Your task to perform on an android device: uninstall "Duolingo: language lessons" Image 0: 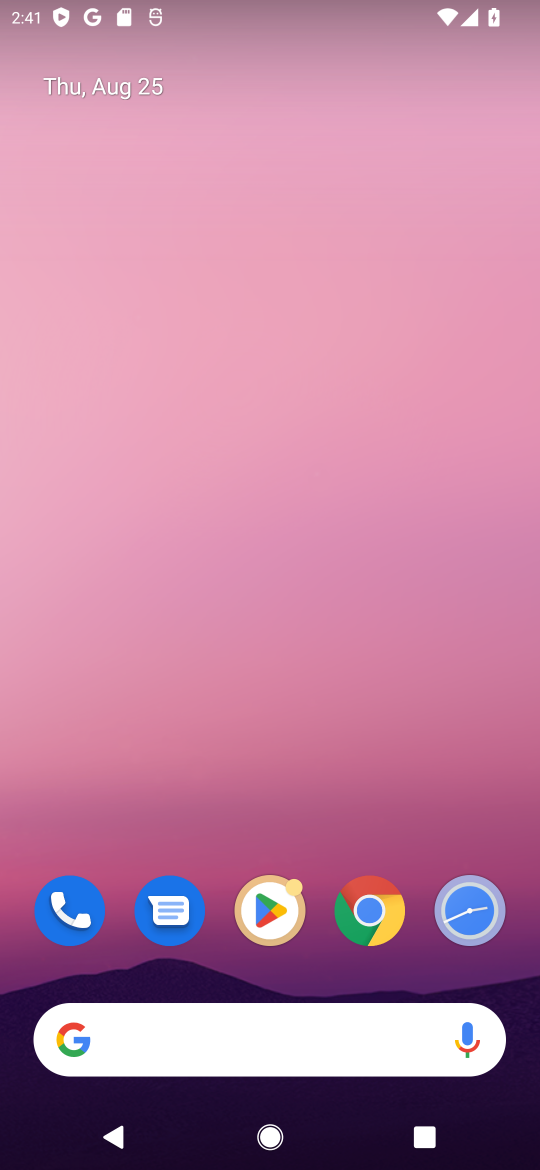
Step 0: drag from (352, 902) to (512, 108)
Your task to perform on an android device: uninstall "Duolingo: language lessons" Image 1: 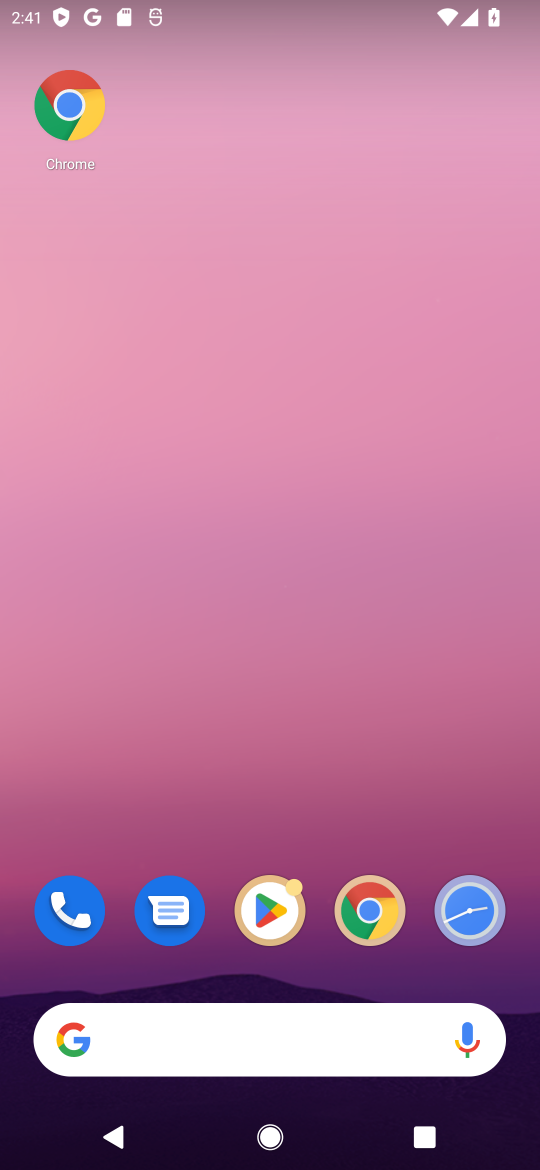
Step 1: drag from (221, 710) to (251, 167)
Your task to perform on an android device: uninstall "Duolingo: language lessons" Image 2: 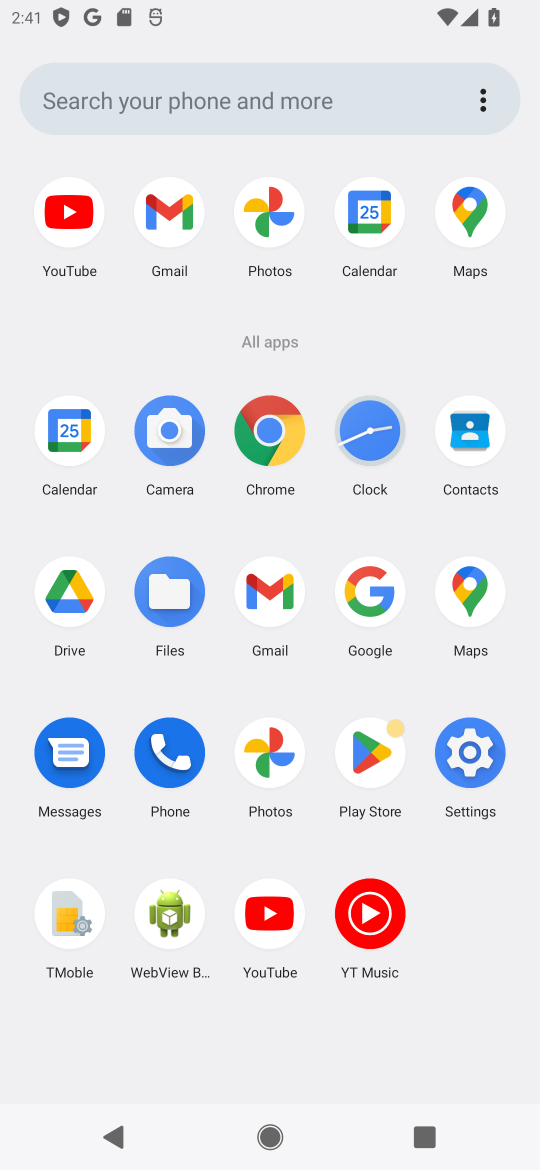
Step 2: click (379, 766)
Your task to perform on an android device: uninstall "Duolingo: language lessons" Image 3: 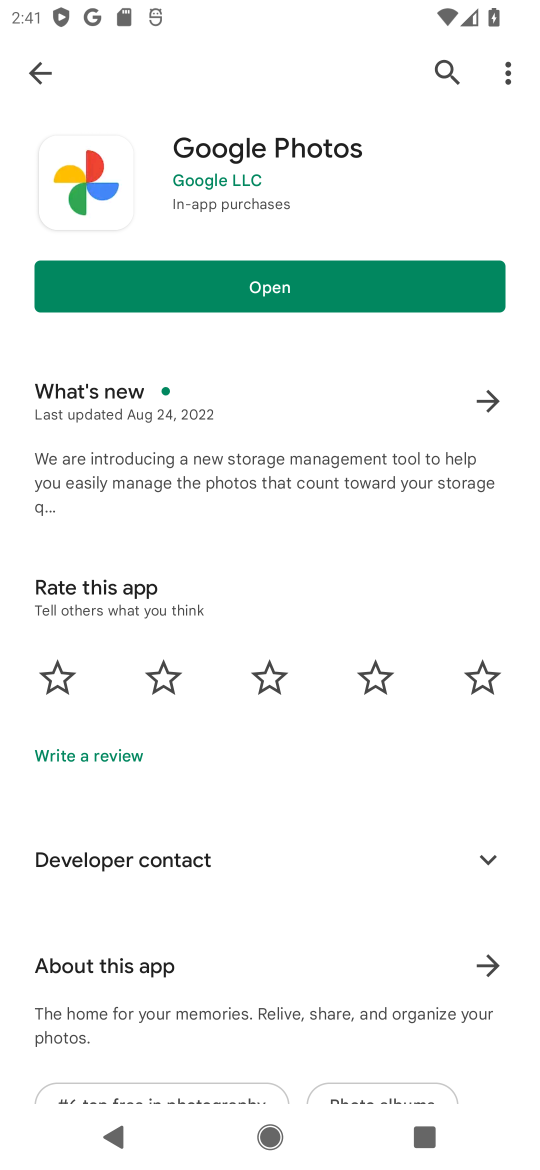
Step 3: press back button
Your task to perform on an android device: uninstall "Duolingo: language lessons" Image 4: 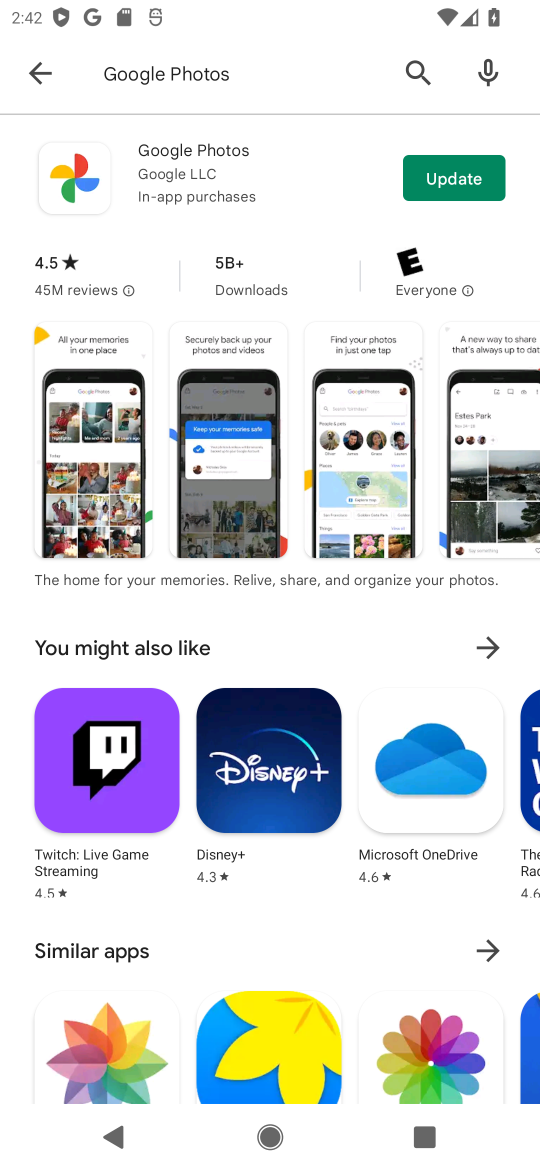
Step 4: press back button
Your task to perform on an android device: uninstall "Duolingo: language lessons" Image 5: 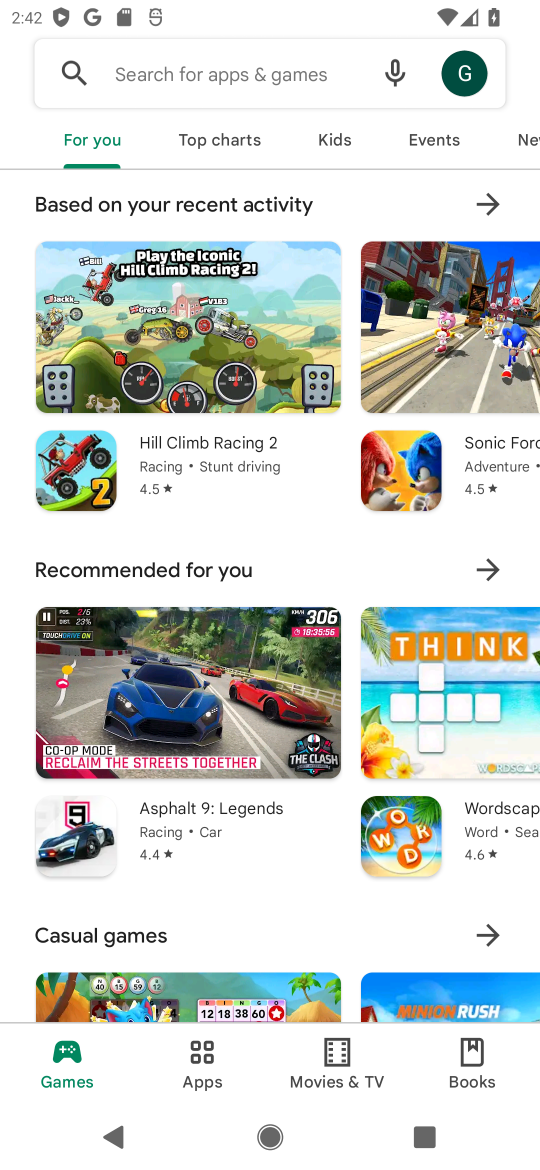
Step 5: drag from (303, 88) to (350, 166)
Your task to perform on an android device: uninstall "Duolingo: language lessons" Image 6: 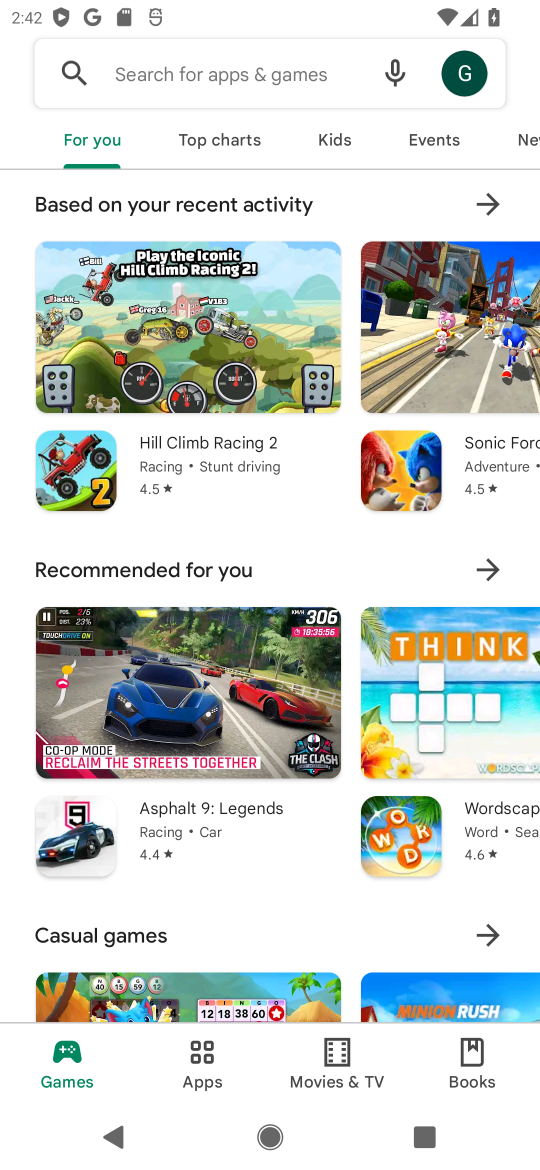
Step 6: click (231, 92)
Your task to perform on an android device: uninstall "Duolingo: language lessons" Image 7: 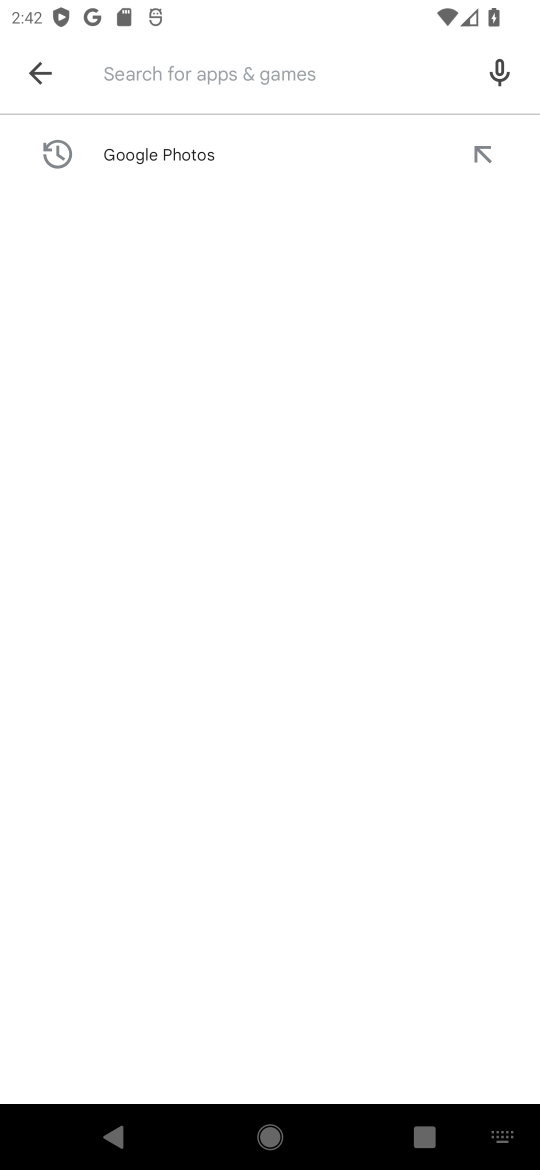
Step 7: type "Duolingo: language lessons"
Your task to perform on an android device: uninstall "Duolingo: language lessons" Image 8: 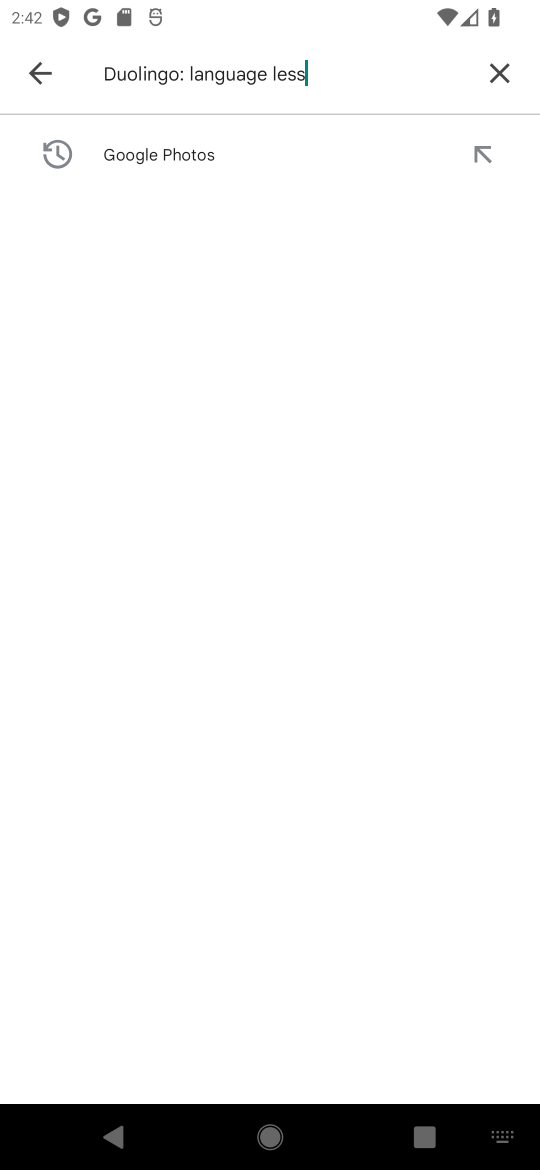
Step 8: press enter
Your task to perform on an android device: uninstall "Duolingo: language lessons" Image 9: 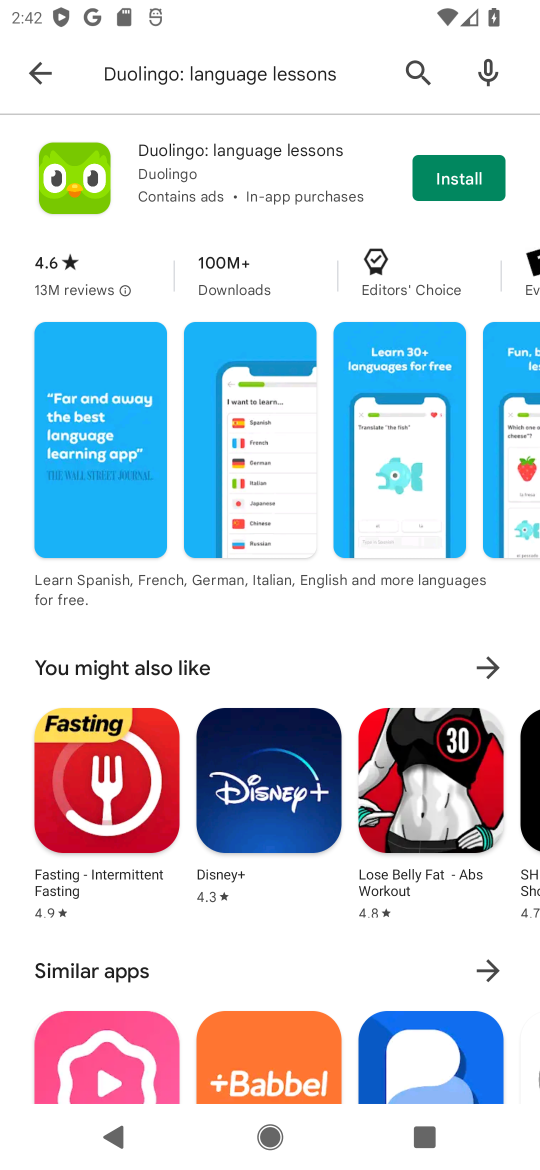
Step 9: task complete